Your task to perform on an android device: snooze an email in the gmail app Image 0: 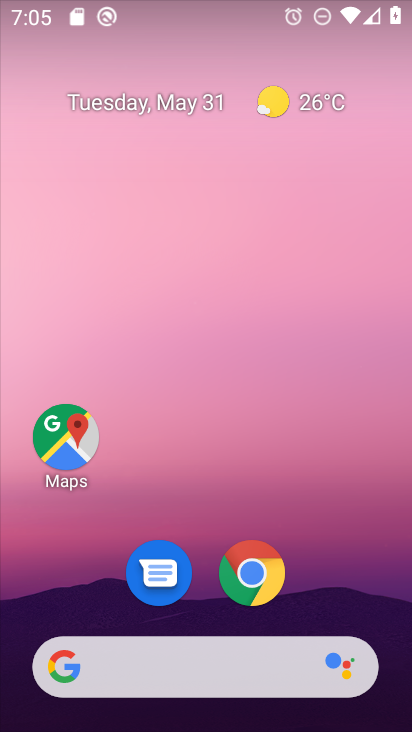
Step 0: drag from (391, 645) to (243, 111)
Your task to perform on an android device: snooze an email in the gmail app Image 1: 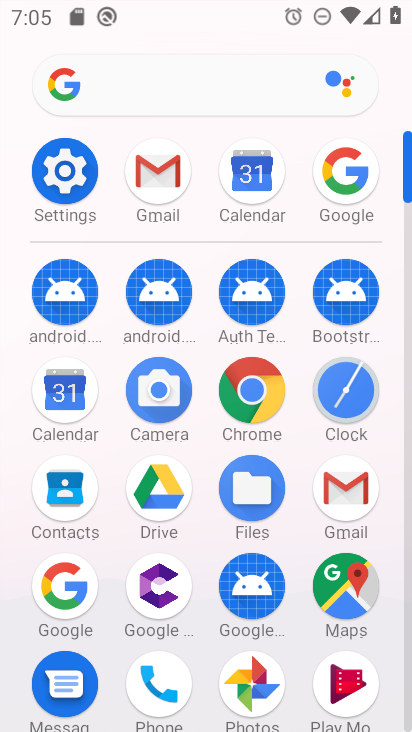
Step 1: click (360, 485)
Your task to perform on an android device: snooze an email in the gmail app Image 2: 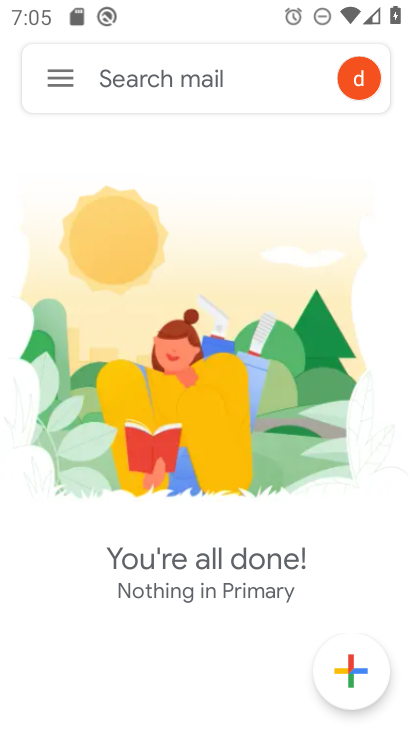
Step 2: click (58, 85)
Your task to perform on an android device: snooze an email in the gmail app Image 3: 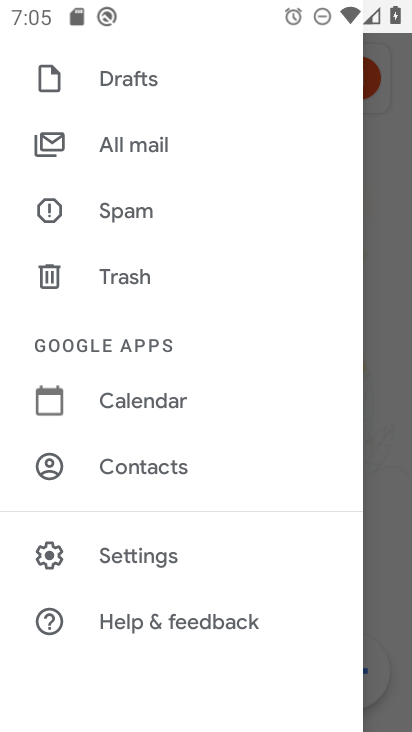
Step 3: task complete